Your task to perform on an android device: Play the last video I watched on Youtube Image 0: 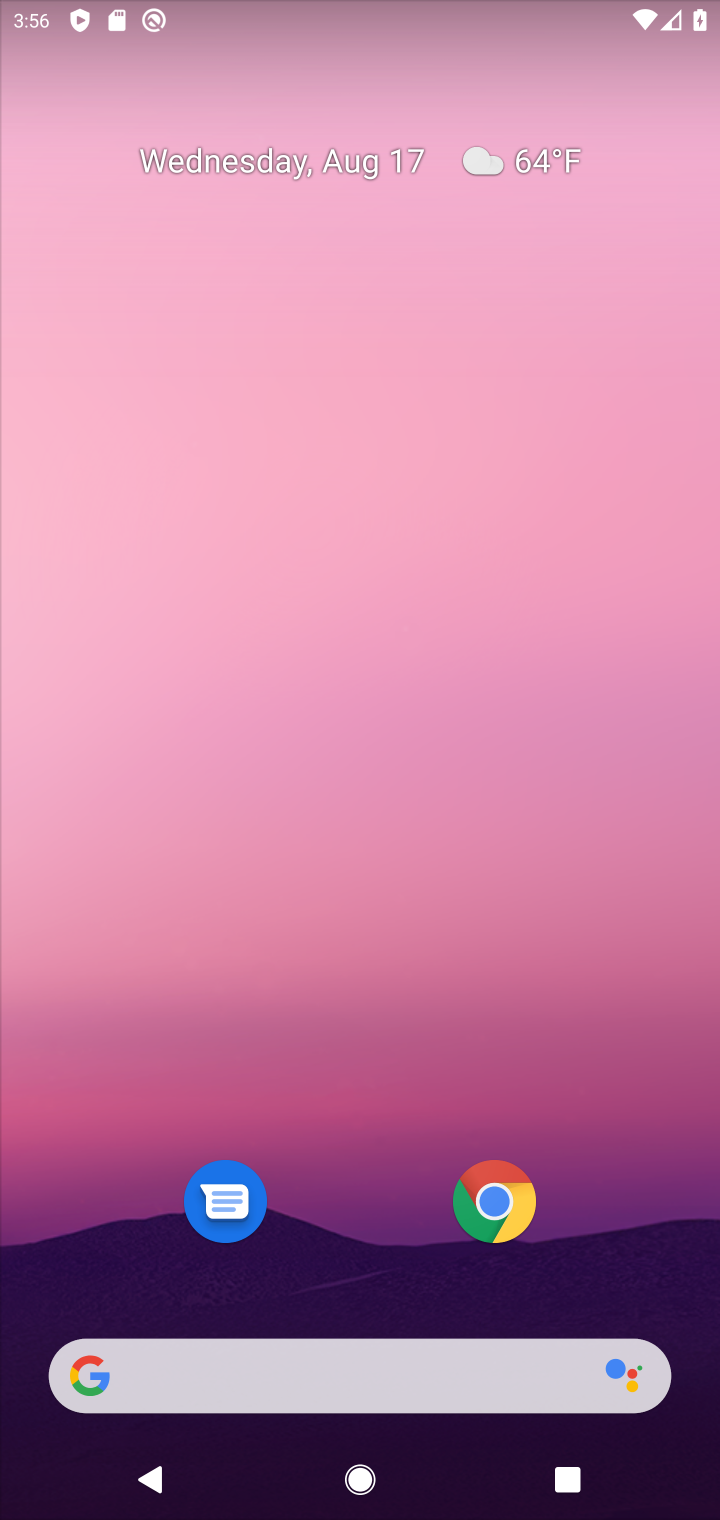
Step 0: drag from (334, 1030) to (416, 328)
Your task to perform on an android device: Play the last video I watched on Youtube Image 1: 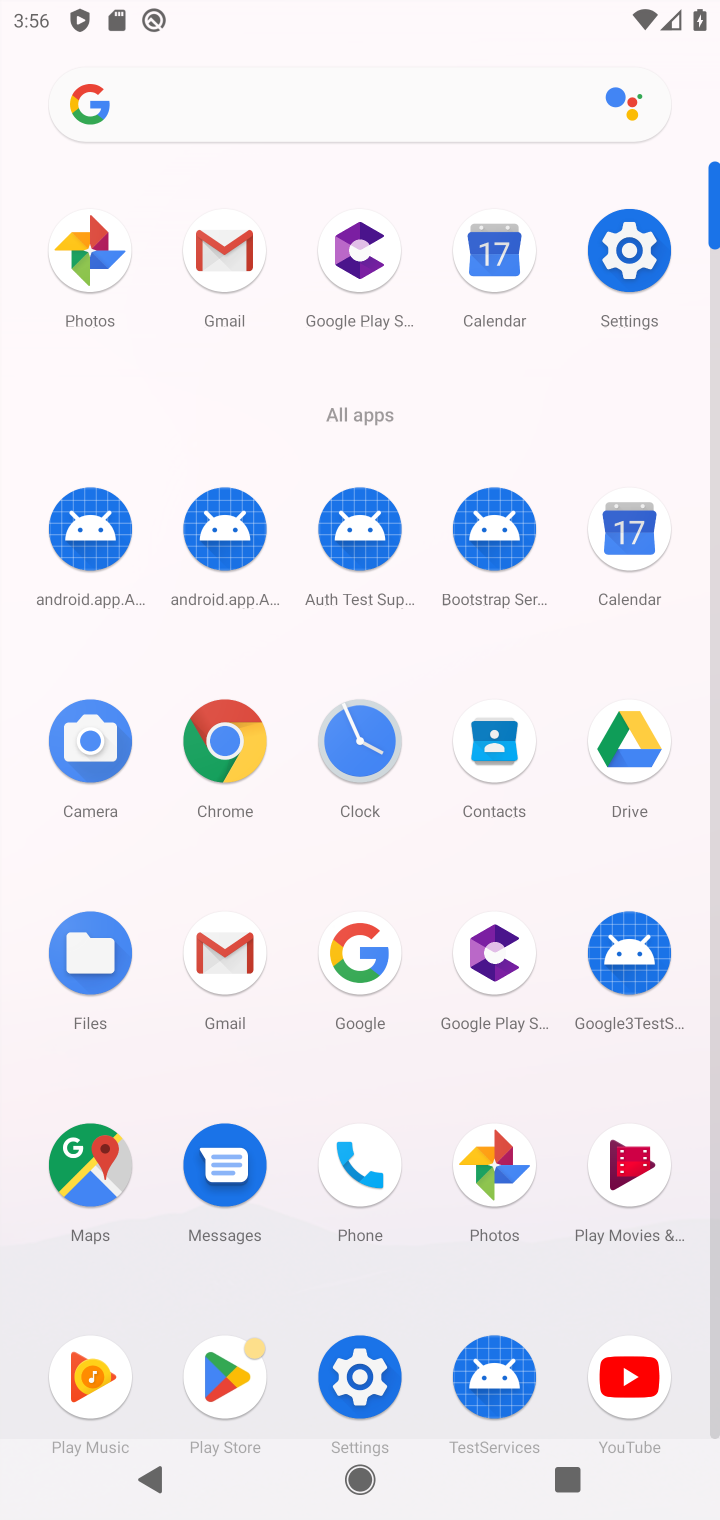
Step 1: click (627, 1356)
Your task to perform on an android device: Play the last video I watched on Youtube Image 2: 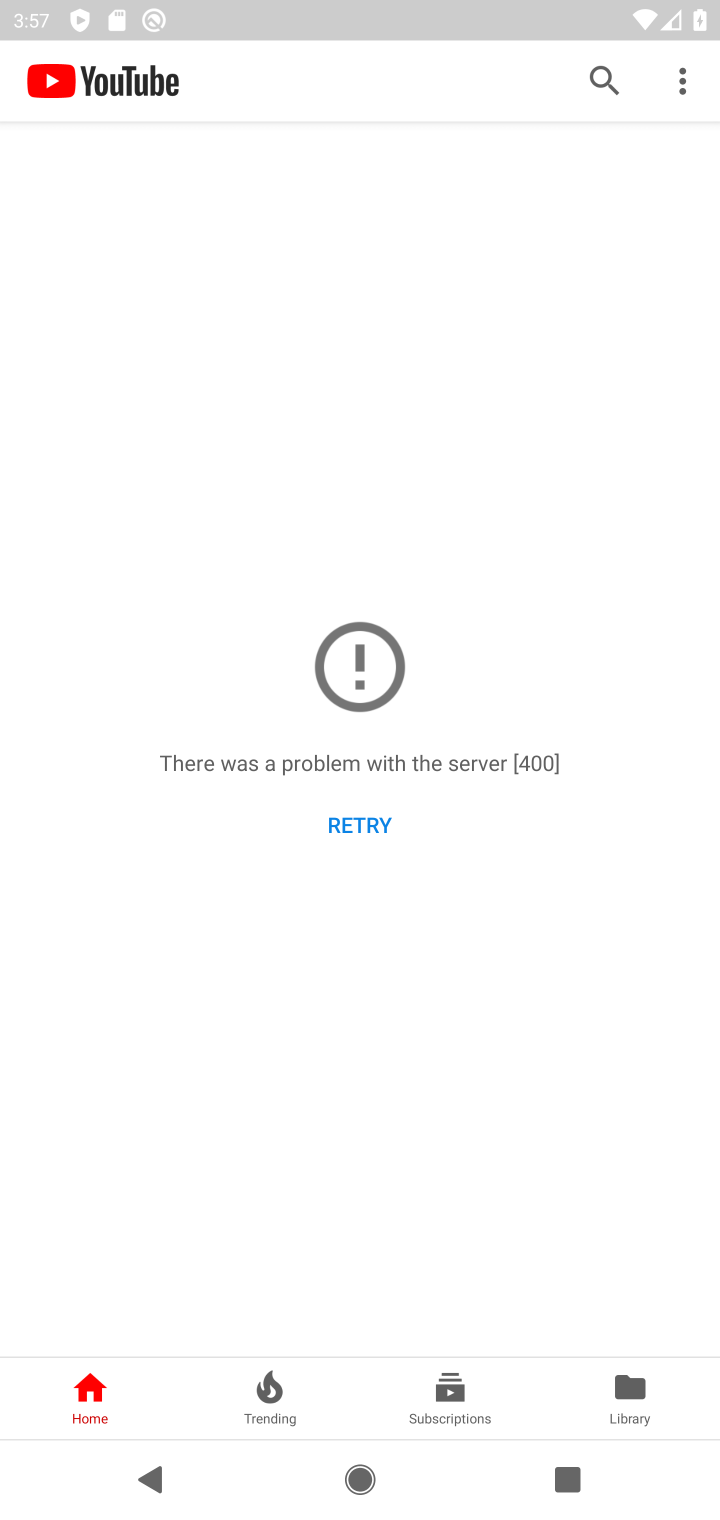
Step 2: click (332, 809)
Your task to perform on an android device: Play the last video I watched on Youtube Image 3: 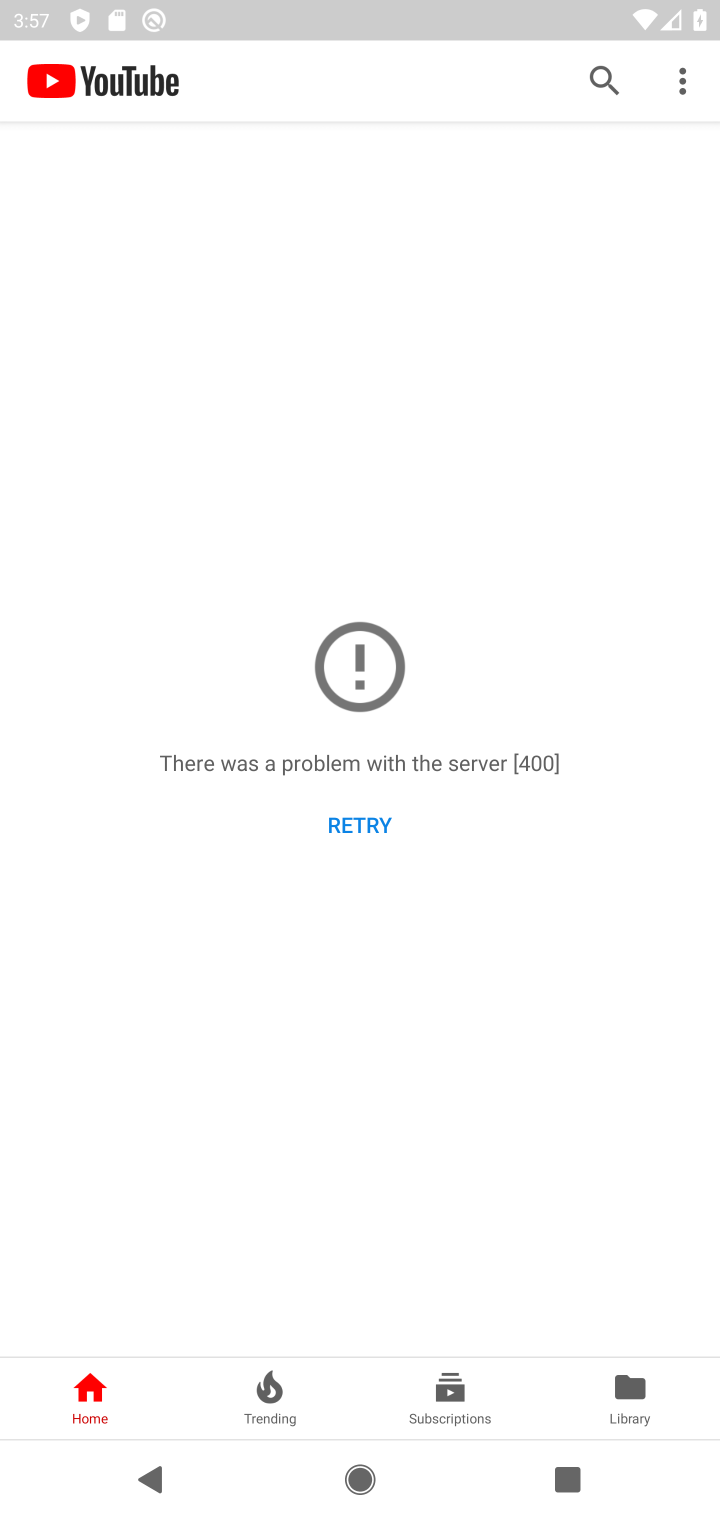
Step 3: click (370, 827)
Your task to perform on an android device: Play the last video I watched on Youtube Image 4: 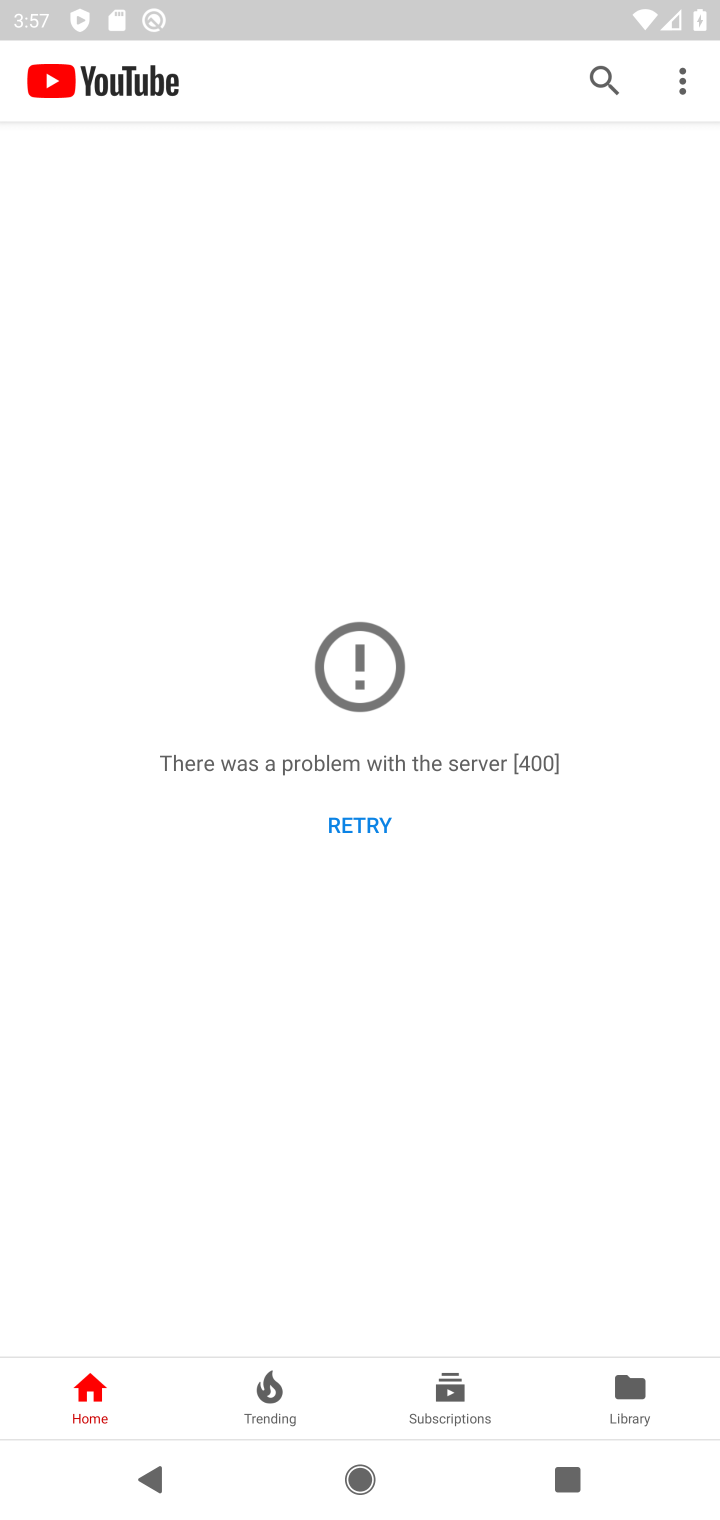
Step 4: click (635, 1380)
Your task to perform on an android device: Play the last video I watched on Youtube Image 5: 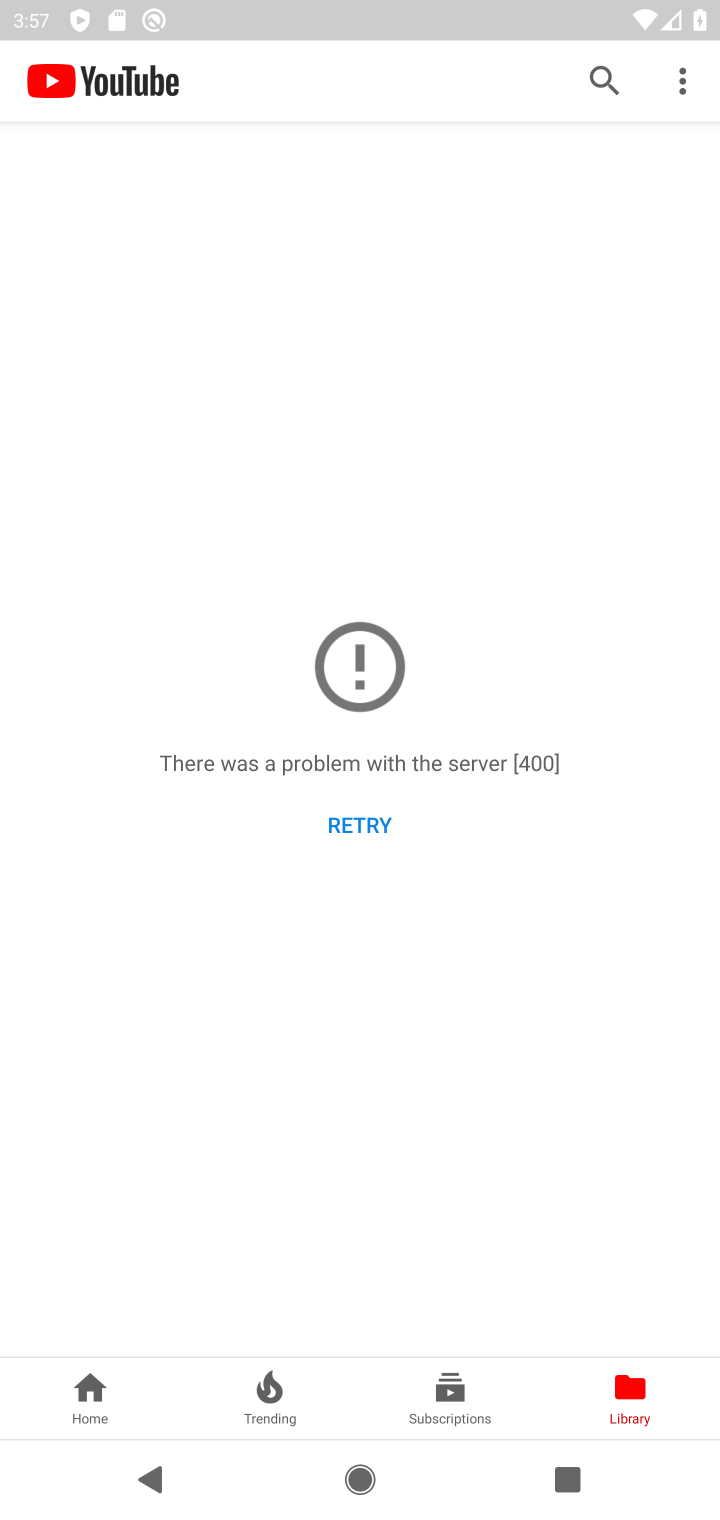
Step 5: click (365, 822)
Your task to perform on an android device: Play the last video I watched on Youtube Image 6: 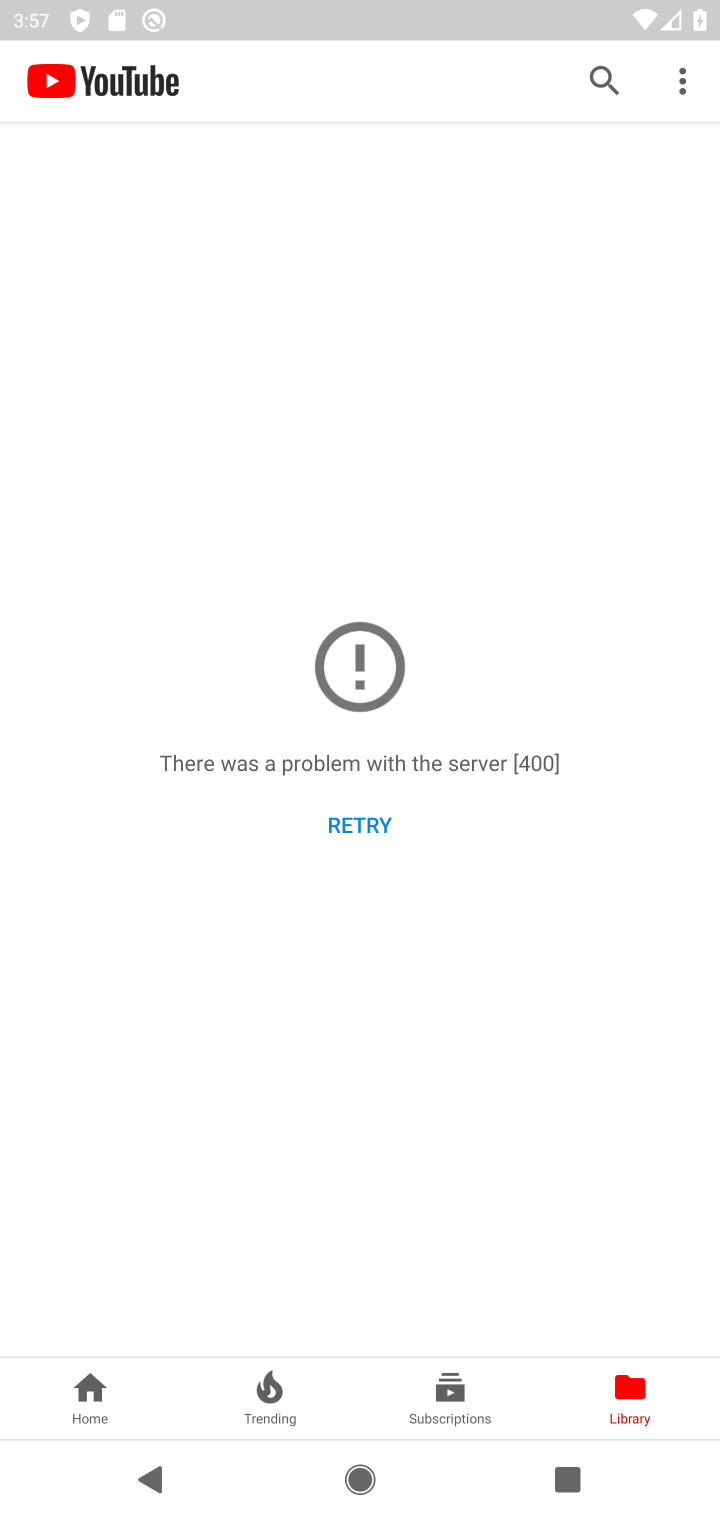
Step 6: task complete